Your task to perform on an android device: open the mobile data screen to see how much data has been used Image 0: 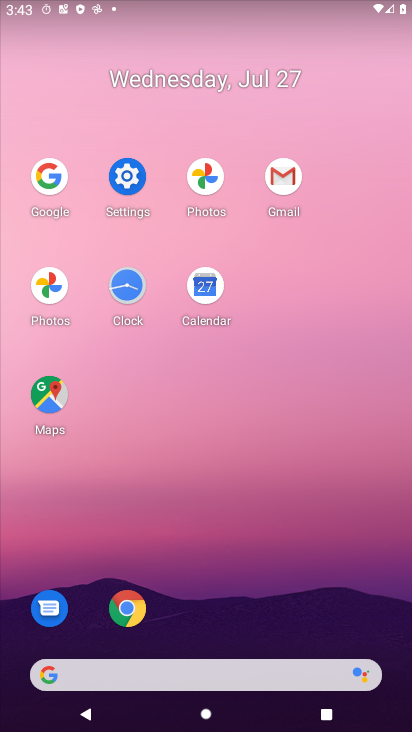
Step 0: click (120, 186)
Your task to perform on an android device: open the mobile data screen to see how much data has been used Image 1: 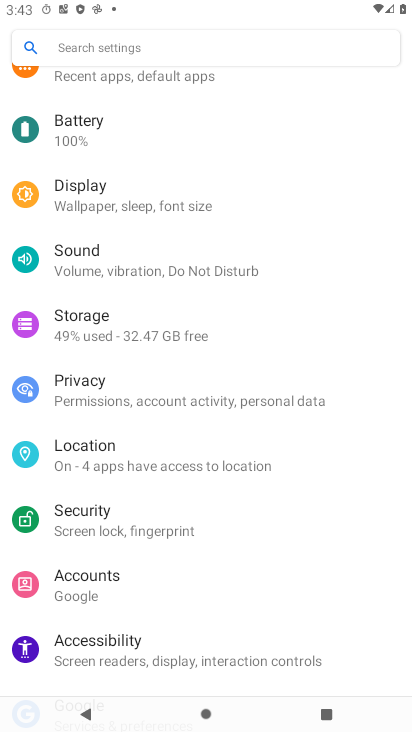
Step 1: drag from (214, 153) to (190, 494)
Your task to perform on an android device: open the mobile data screen to see how much data has been used Image 2: 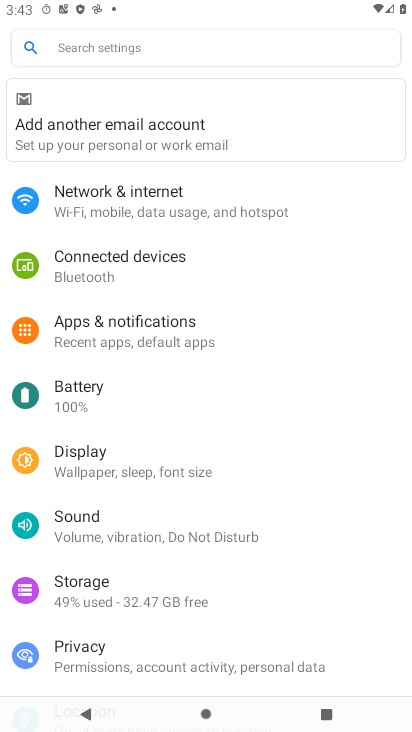
Step 2: click (187, 197)
Your task to perform on an android device: open the mobile data screen to see how much data has been used Image 3: 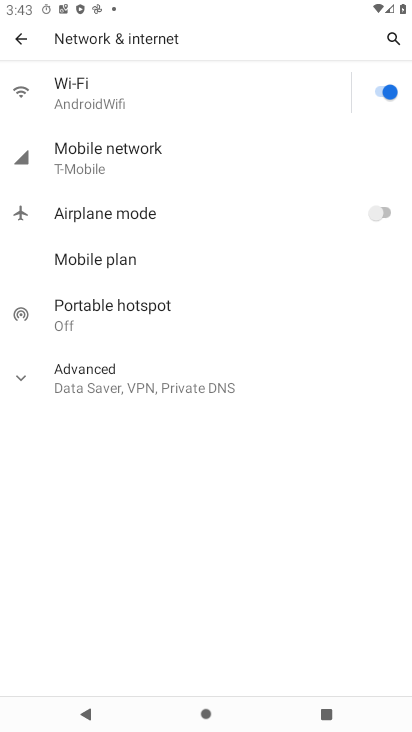
Step 3: click (110, 141)
Your task to perform on an android device: open the mobile data screen to see how much data has been used Image 4: 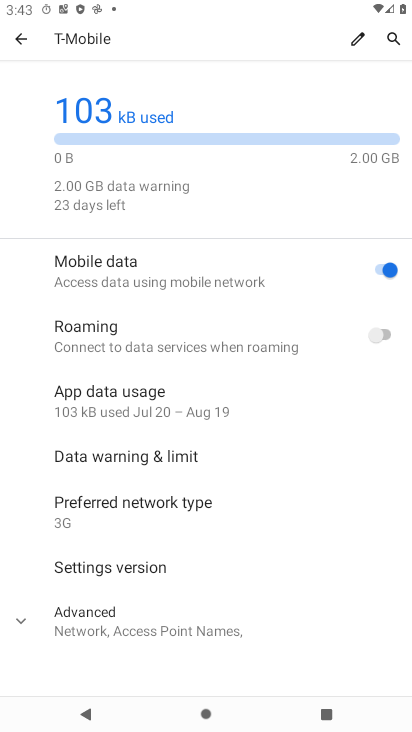
Step 4: task complete